Your task to perform on an android device: Open sound settings Image 0: 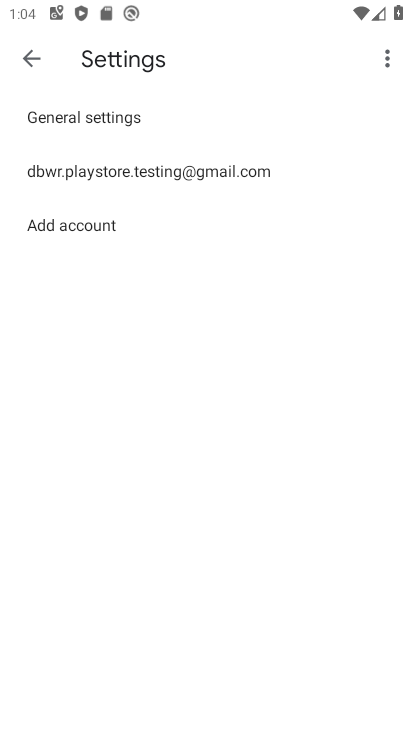
Step 0: press home button
Your task to perform on an android device: Open sound settings Image 1: 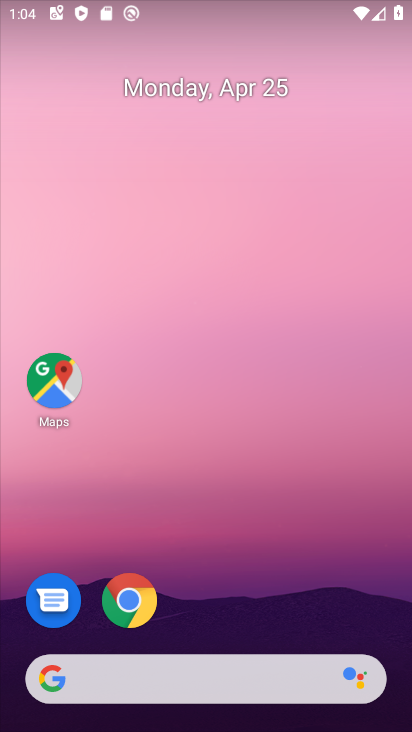
Step 1: drag from (208, 676) to (295, 135)
Your task to perform on an android device: Open sound settings Image 2: 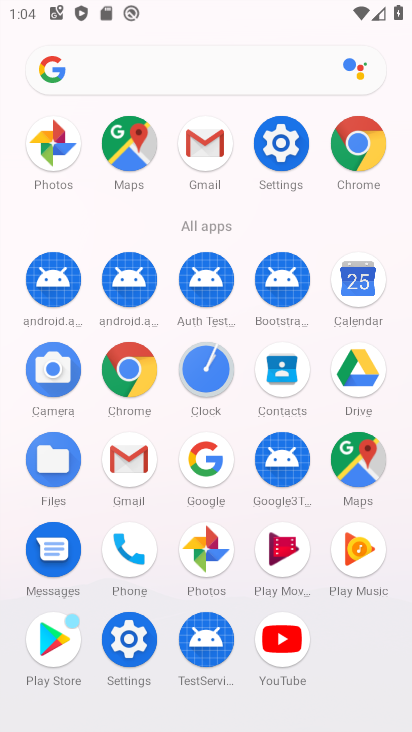
Step 2: click (289, 160)
Your task to perform on an android device: Open sound settings Image 3: 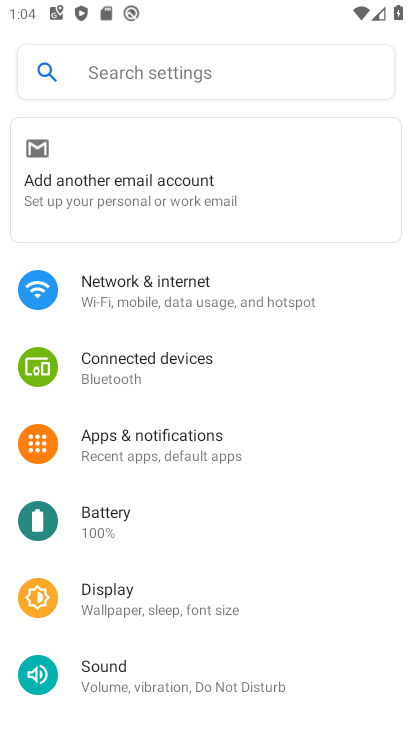
Step 3: drag from (166, 629) to (300, 317)
Your task to perform on an android device: Open sound settings Image 4: 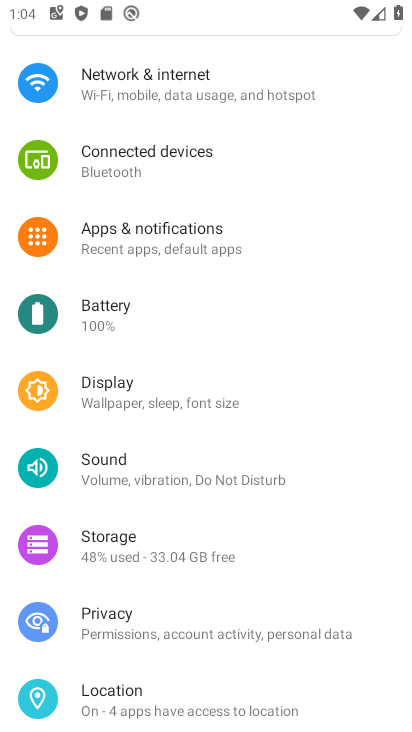
Step 4: click (148, 476)
Your task to perform on an android device: Open sound settings Image 5: 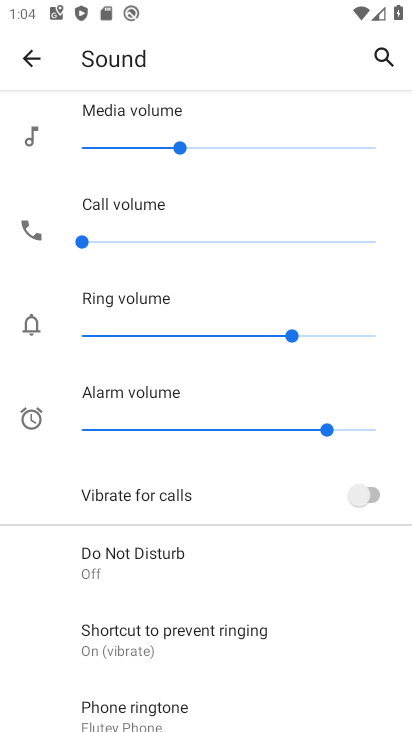
Step 5: task complete